Your task to perform on an android device: Show me recent news Image 0: 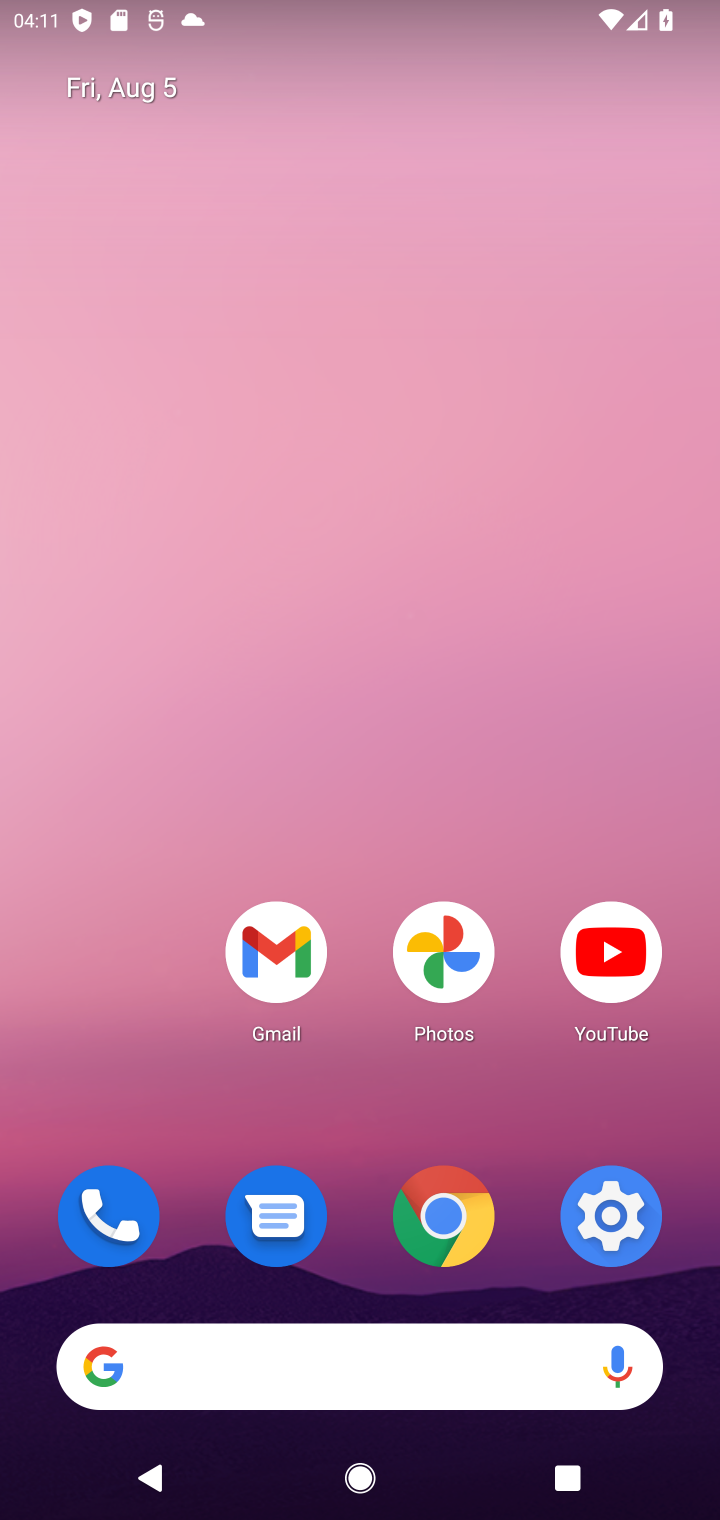
Step 0: click (423, 950)
Your task to perform on an android device: Show me recent news Image 1: 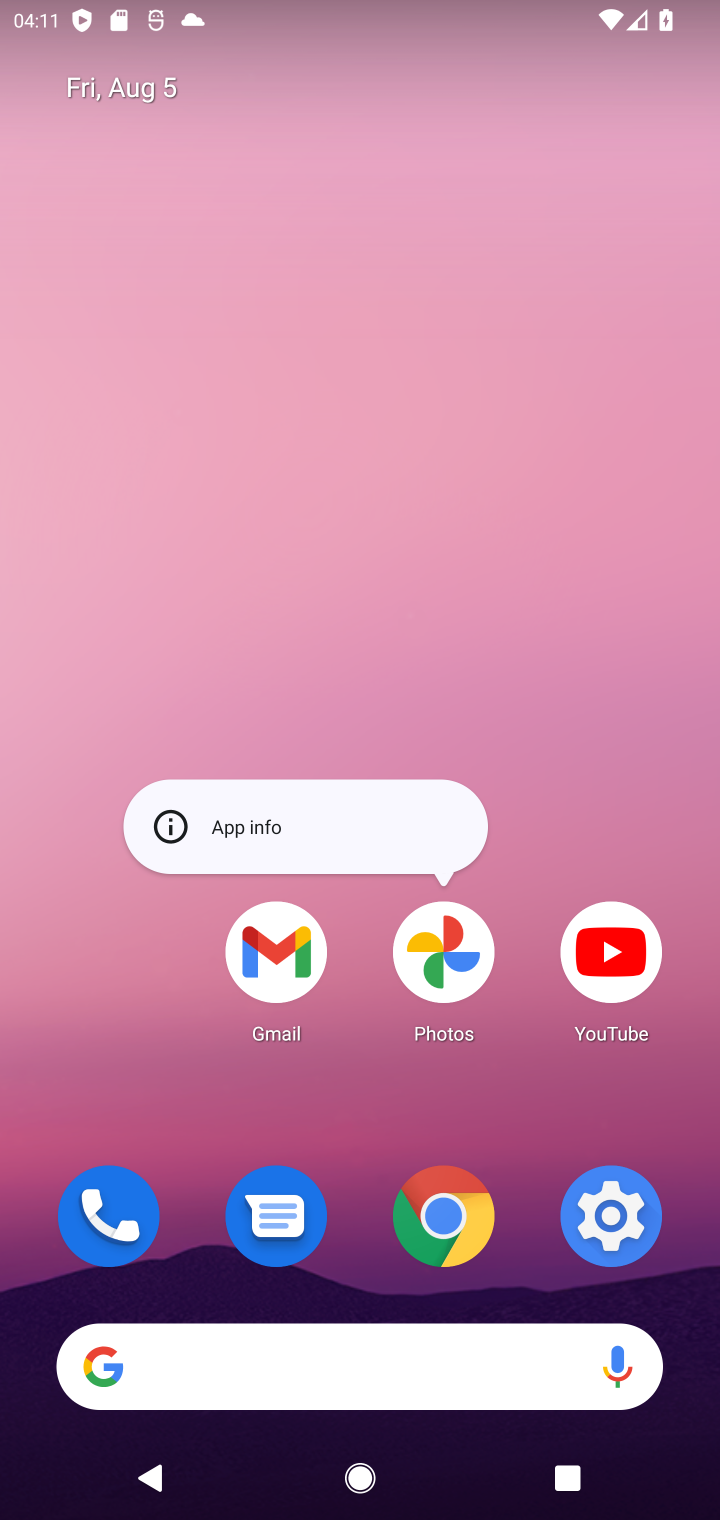
Step 1: click (414, 1354)
Your task to perform on an android device: Show me recent news Image 2: 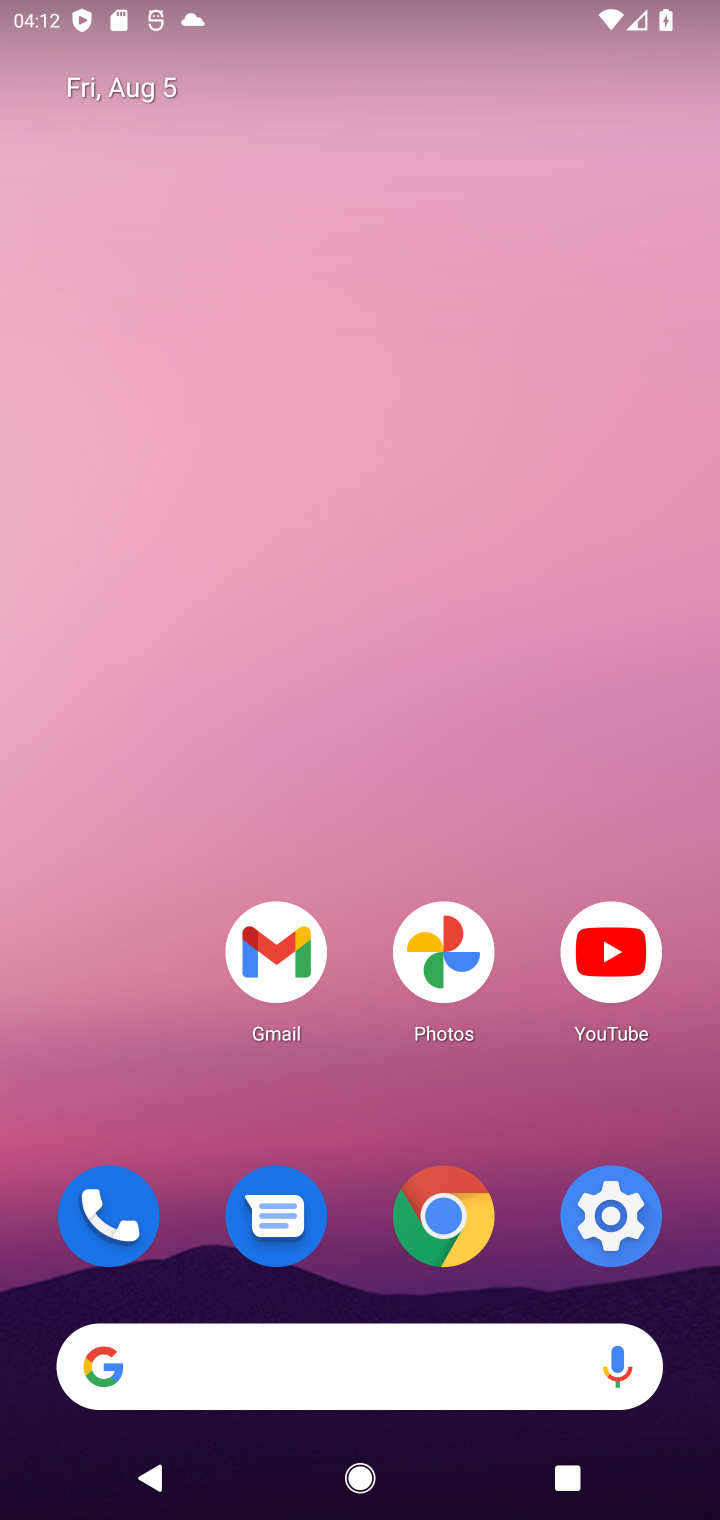
Step 2: drag from (274, 882) to (556, 241)
Your task to perform on an android device: Show me recent news Image 3: 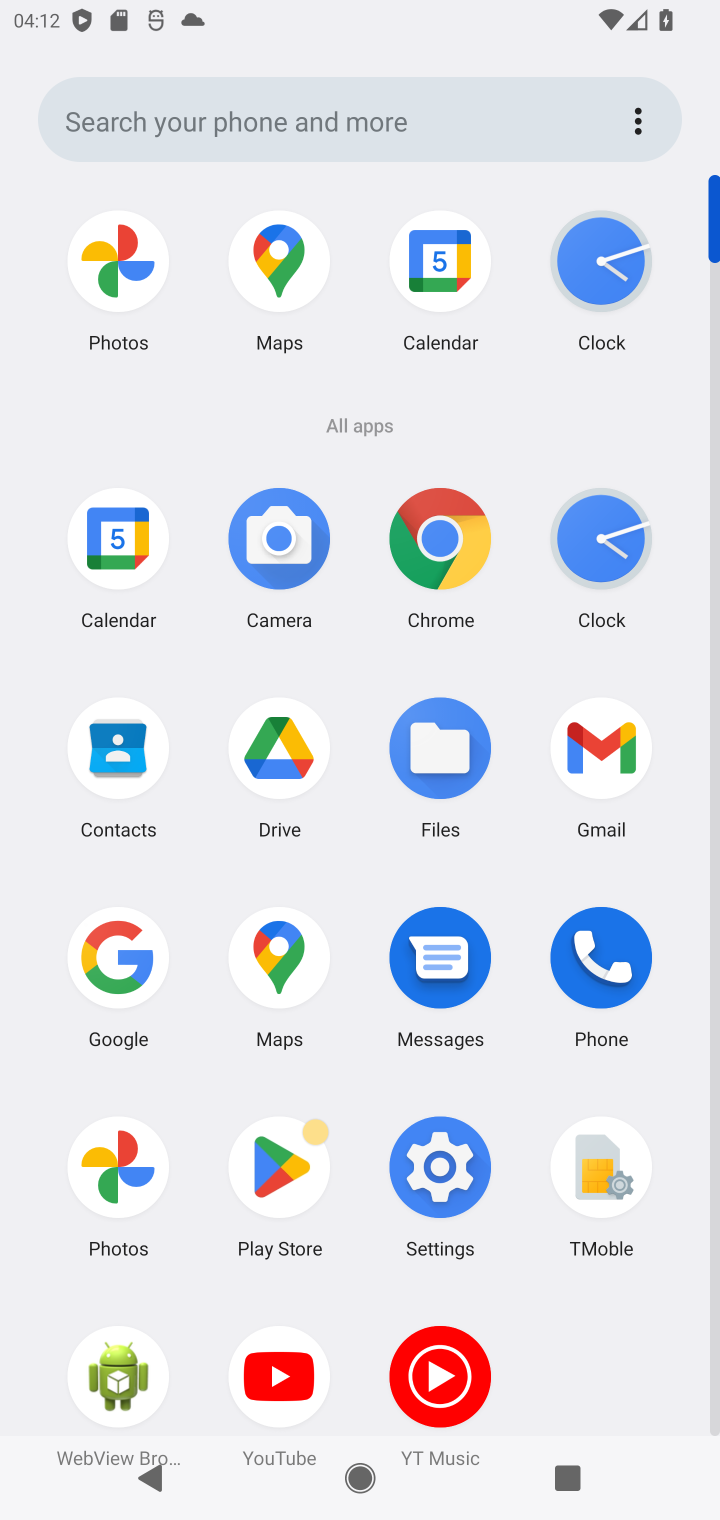
Step 3: click (439, 127)
Your task to perform on an android device: Show me recent news Image 4: 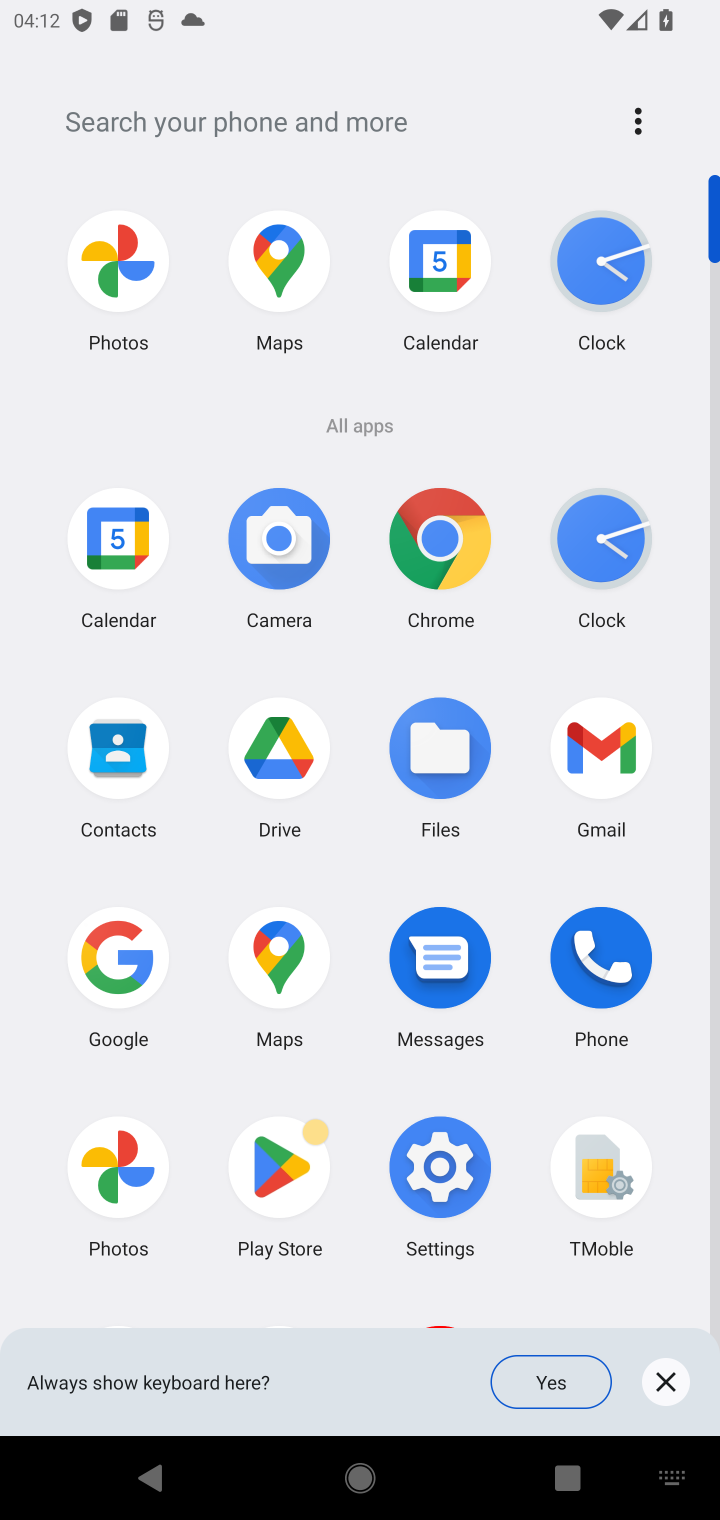
Step 4: type "recent news"
Your task to perform on an android device: Show me recent news Image 5: 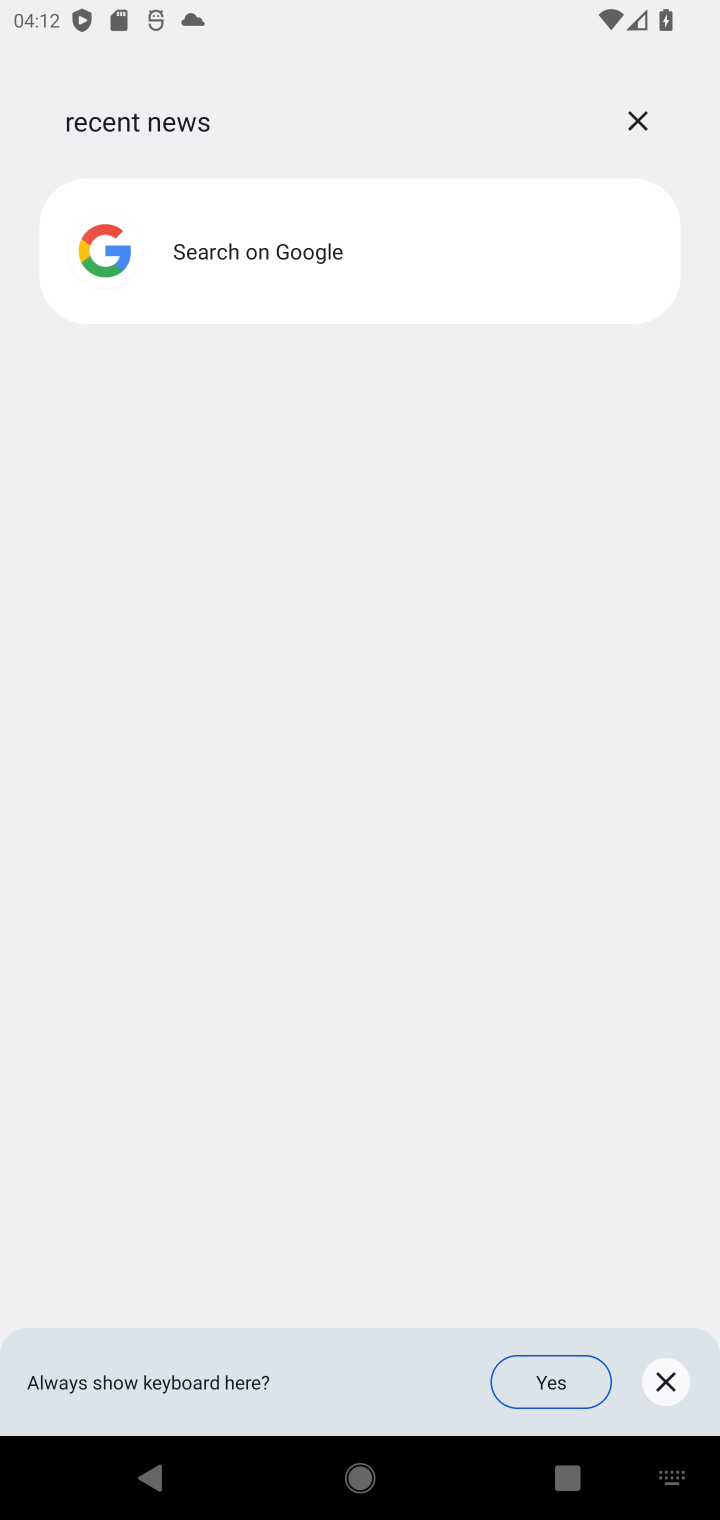
Step 5: click (347, 256)
Your task to perform on an android device: Show me recent news Image 6: 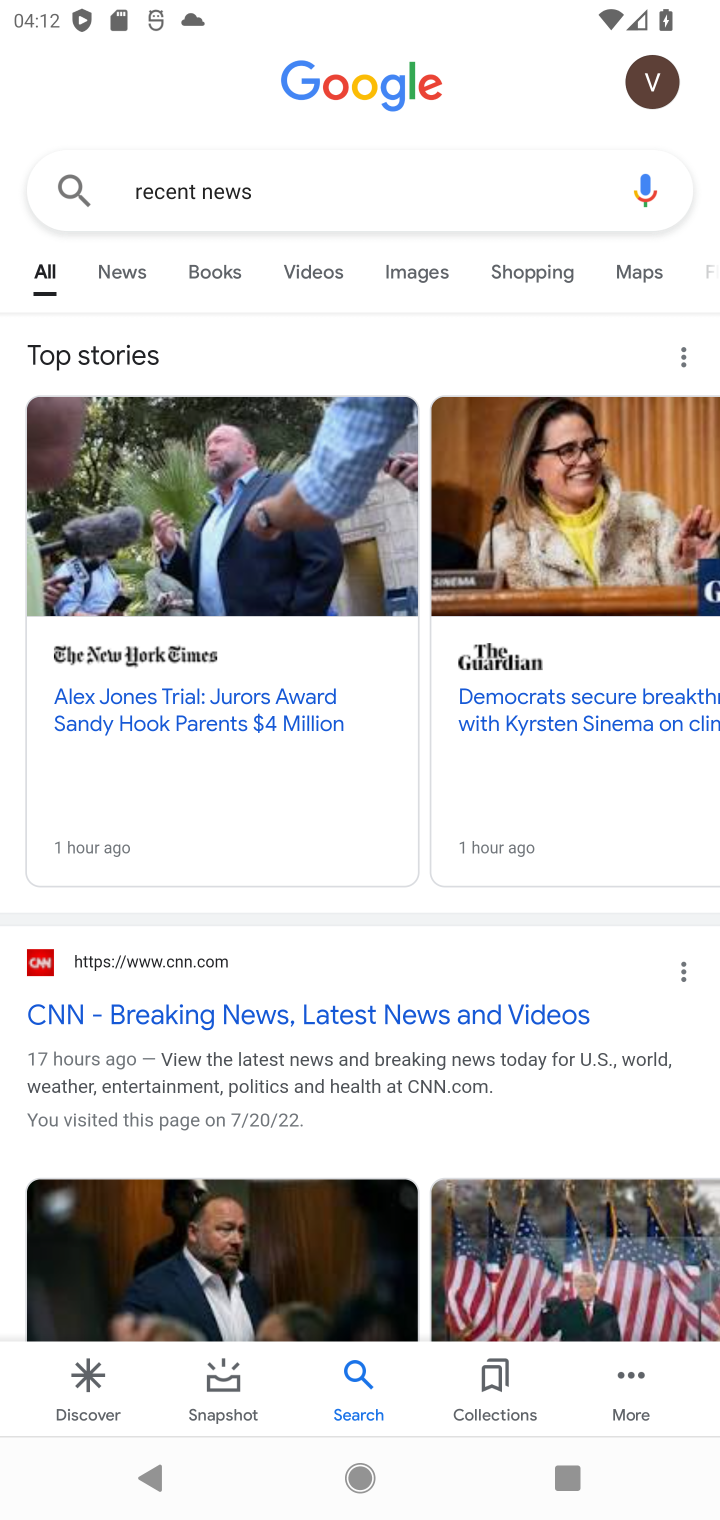
Step 6: task complete